Your task to perform on an android device: check the backup settings in the google photos Image 0: 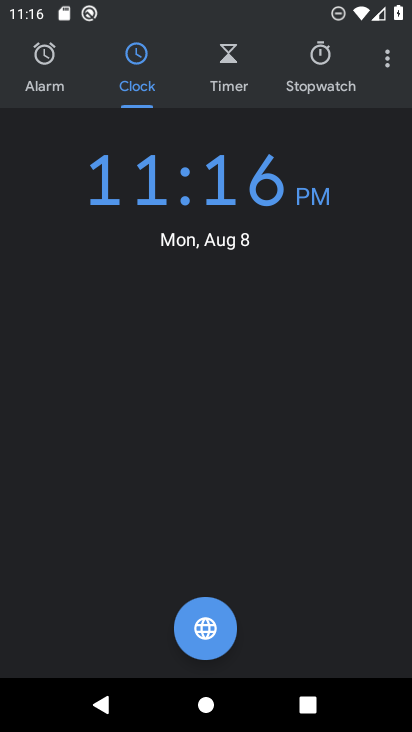
Step 0: press home button
Your task to perform on an android device: check the backup settings in the google photos Image 1: 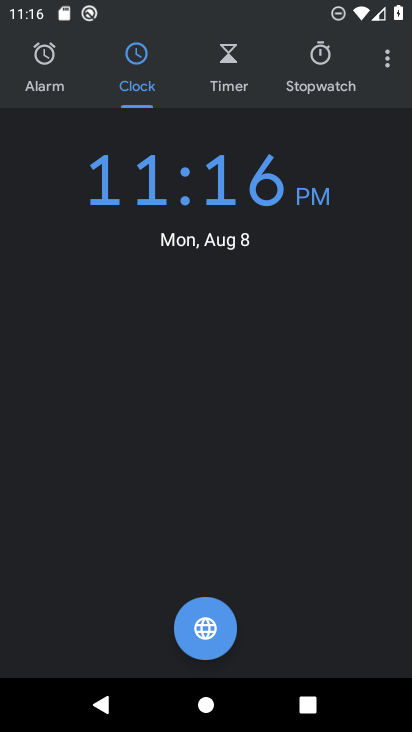
Step 1: press home button
Your task to perform on an android device: check the backup settings in the google photos Image 2: 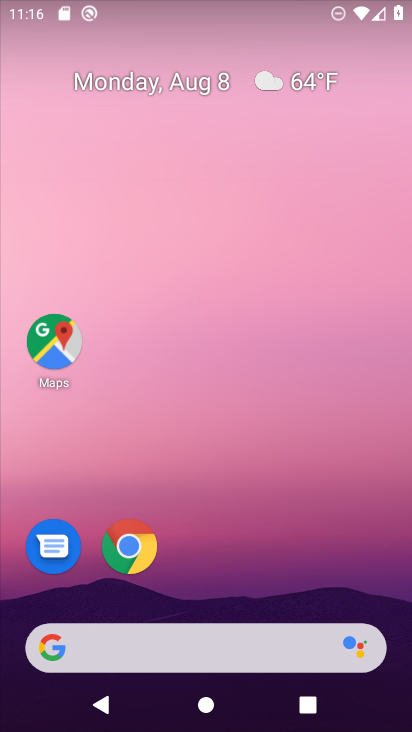
Step 2: press home button
Your task to perform on an android device: check the backup settings in the google photos Image 3: 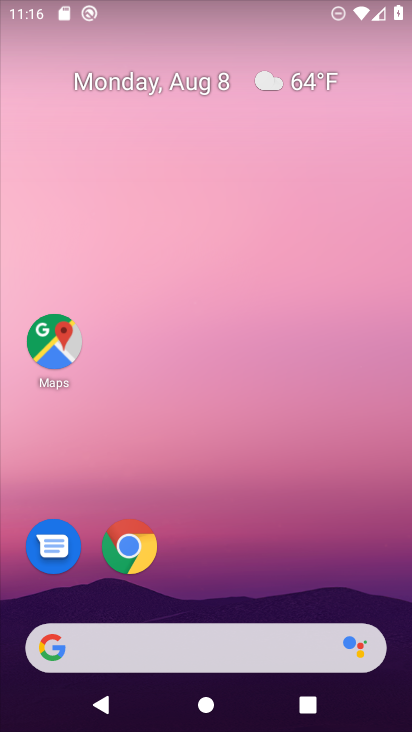
Step 3: press home button
Your task to perform on an android device: check the backup settings in the google photos Image 4: 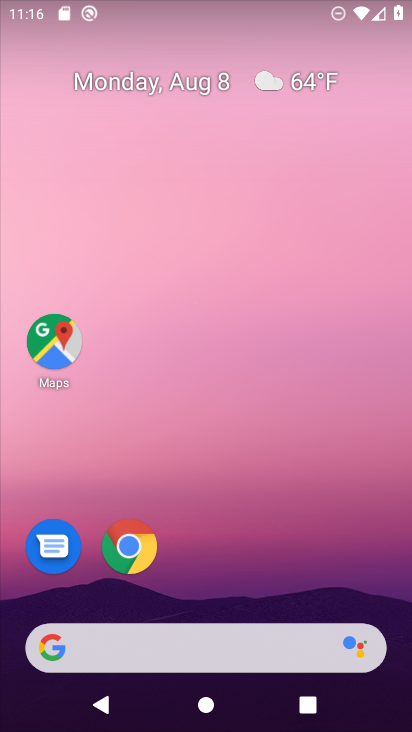
Step 4: press home button
Your task to perform on an android device: check the backup settings in the google photos Image 5: 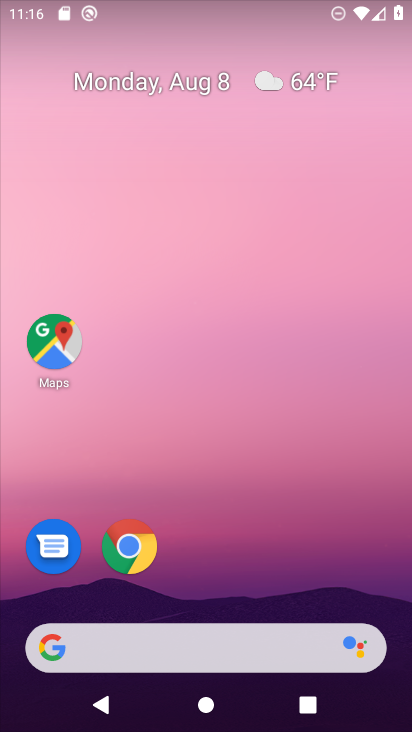
Step 5: drag from (225, 574) to (207, 0)
Your task to perform on an android device: check the backup settings in the google photos Image 6: 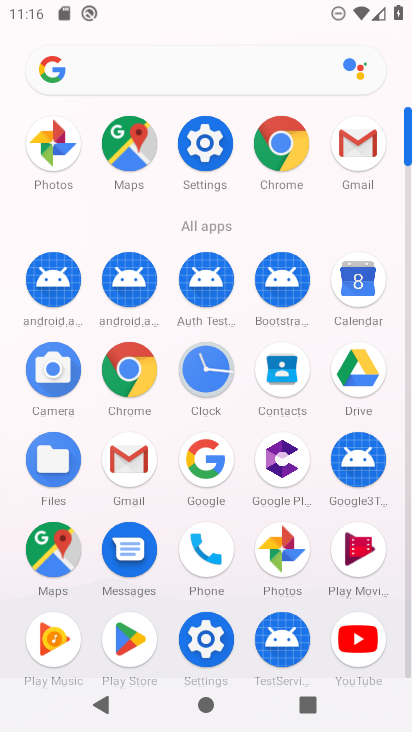
Step 6: click (280, 543)
Your task to perform on an android device: check the backup settings in the google photos Image 7: 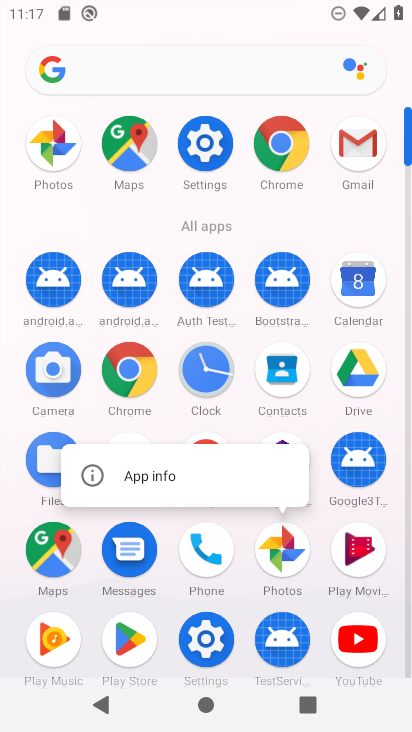
Step 7: click (277, 547)
Your task to perform on an android device: check the backup settings in the google photos Image 8: 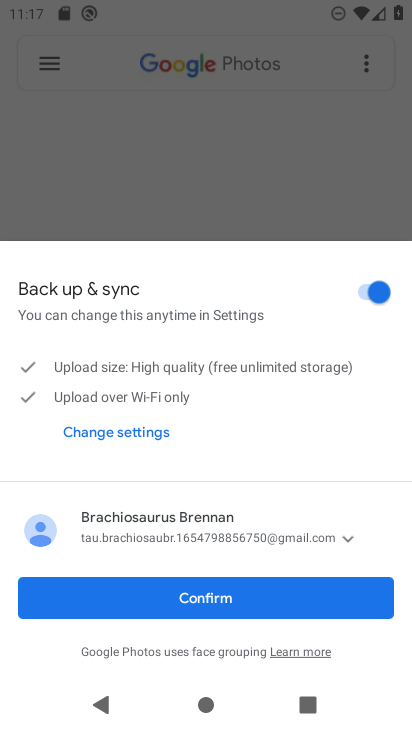
Step 8: click (213, 595)
Your task to perform on an android device: check the backup settings in the google photos Image 9: 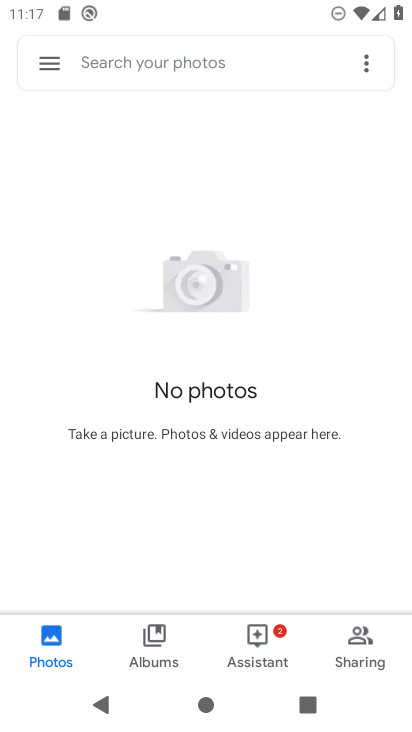
Step 9: click (362, 57)
Your task to perform on an android device: check the backup settings in the google photos Image 10: 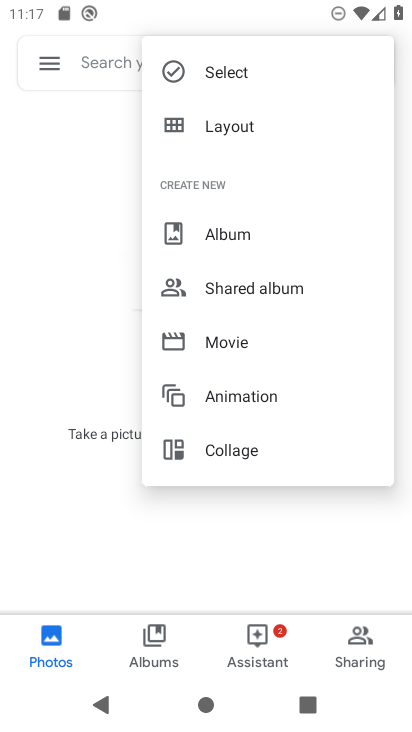
Step 10: click (72, 326)
Your task to perform on an android device: check the backup settings in the google photos Image 11: 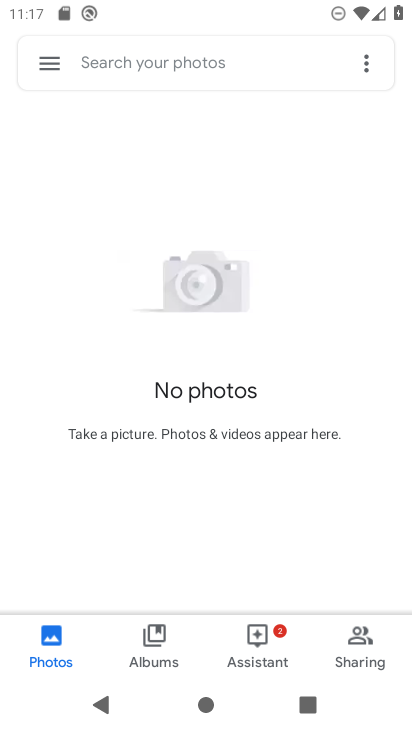
Step 11: click (39, 56)
Your task to perform on an android device: check the backup settings in the google photos Image 12: 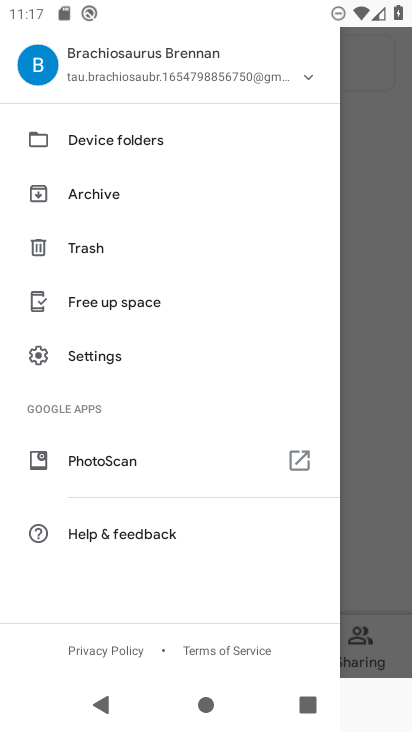
Step 12: click (130, 355)
Your task to perform on an android device: check the backup settings in the google photos Image 13: 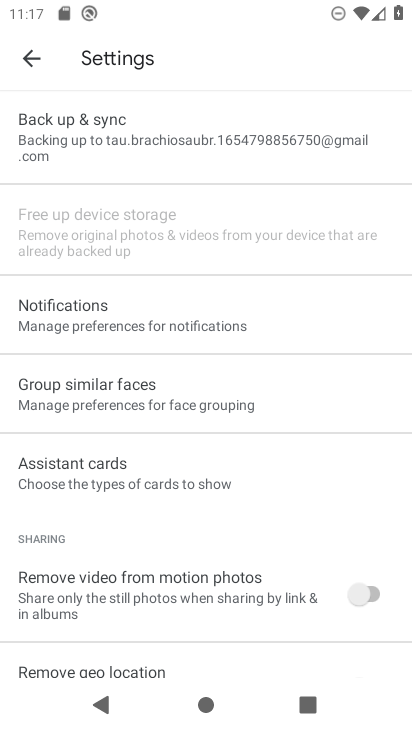
Step 13: click (104, 124)
Your task to perform on an android device: check the backup settings in the google photos Image 14: 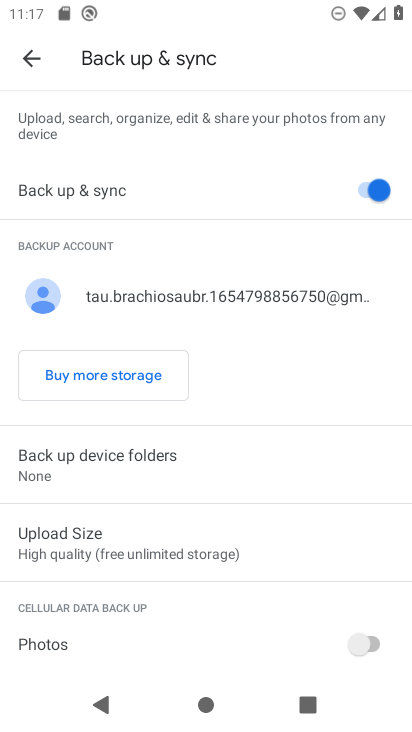
Step 14: task complete